Your task to perform on an android device: Add "usb-a" to the cart on target Image 0: 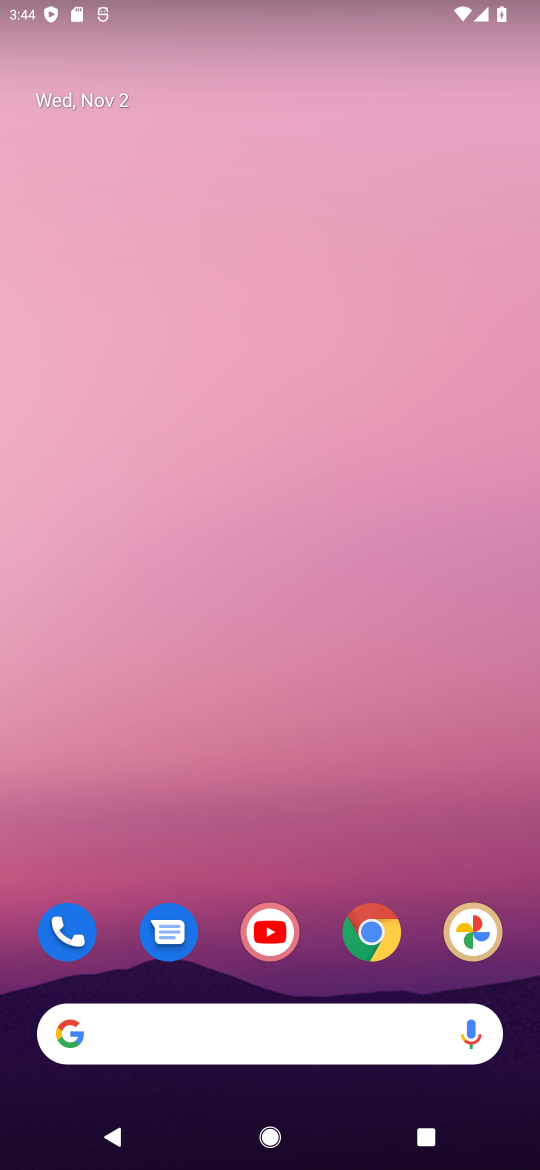
Step 0: click (392, 933)
Your task to perform on an android device: Add "usb-a" to the cart on target Image 1: 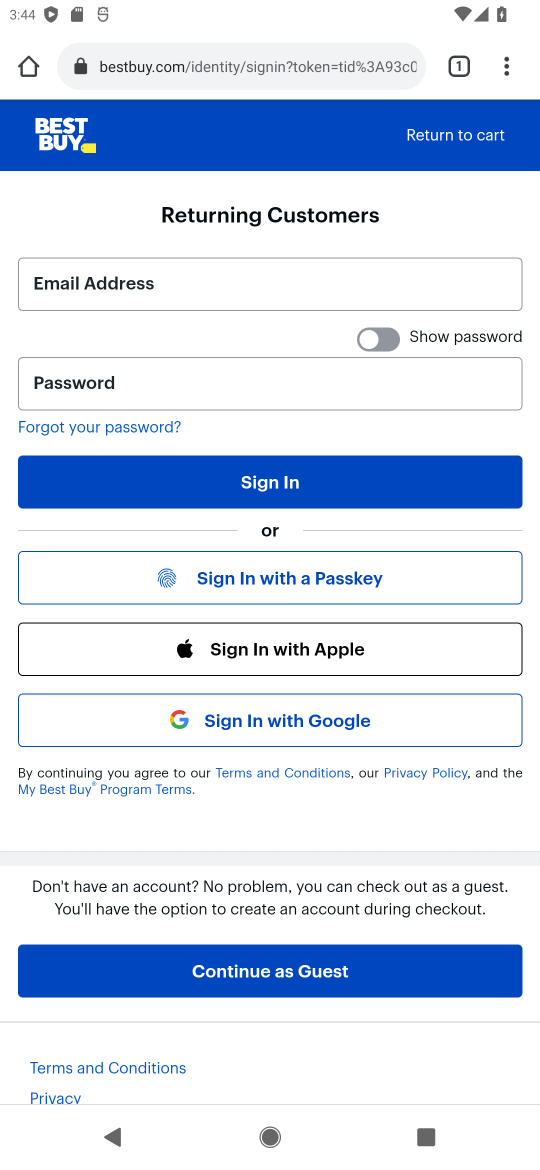
Step 1: click (287, 60)
Your task to perform on an android device: Add "usb-a" to the cart on target Image 2: 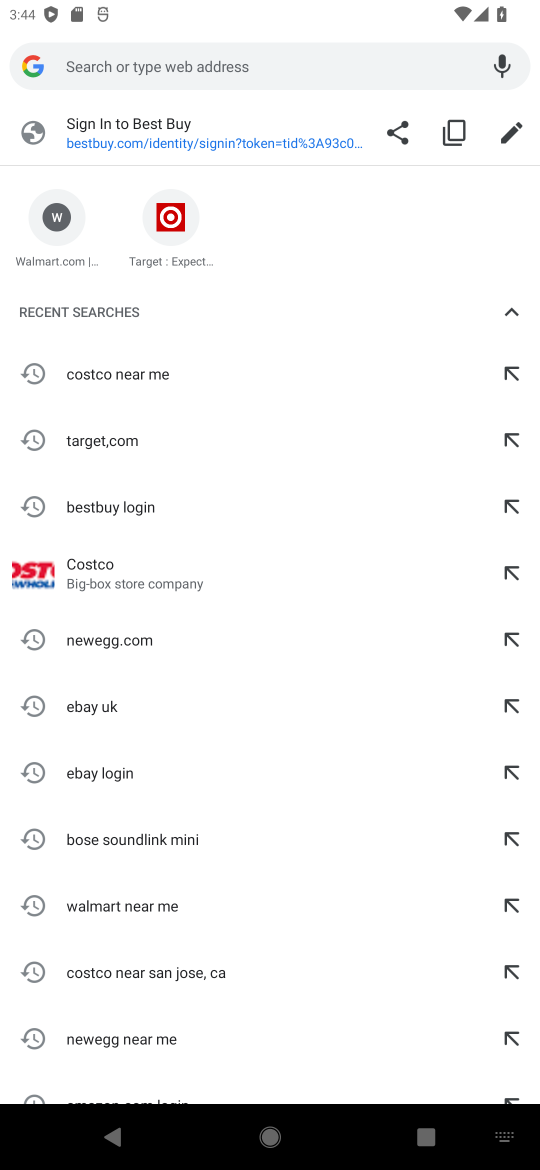
Step 2: click (180, 219)
Your task to perform on an android device: Add "usb-a" to the cart on target Image 3: 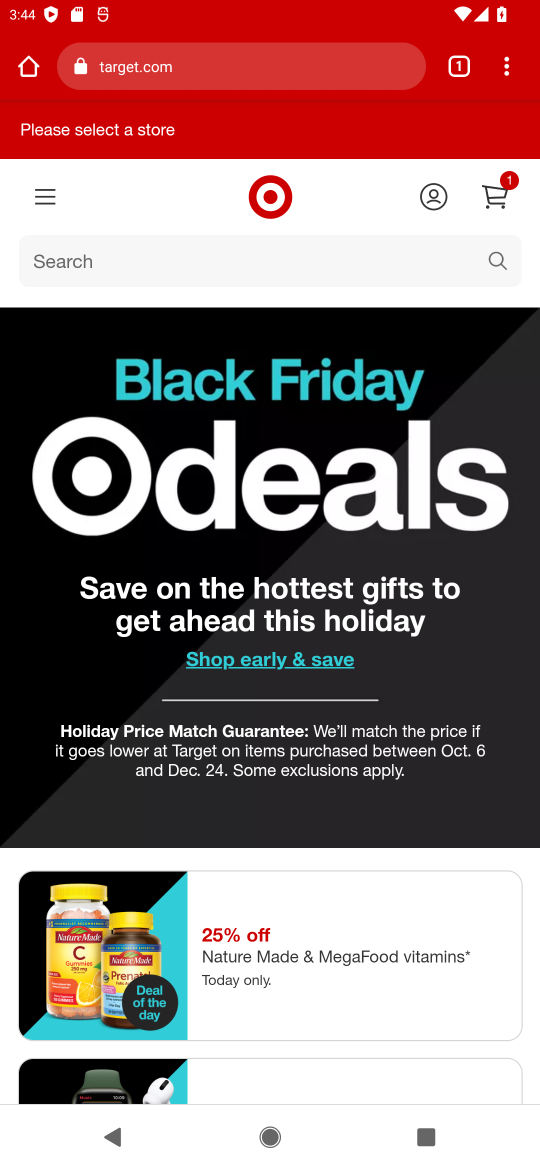
Step 3: click (251, 260)
Your task to perform on an android device: Add "usb-a" to the cart on target Image 4: 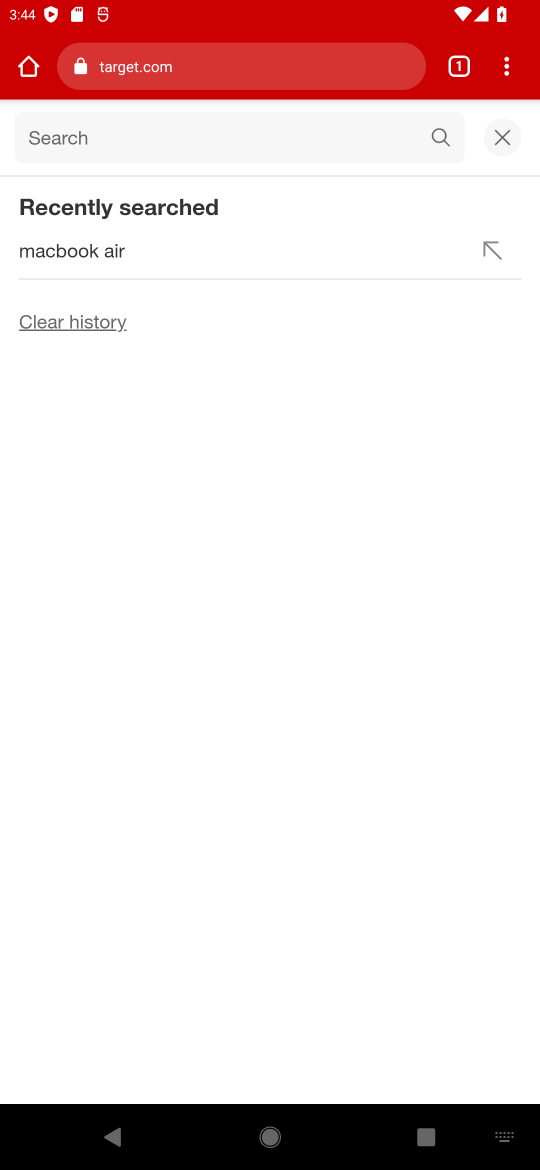
Step 4: type "usb a"
Your task to perform on an android device: Add "usb-a" to the cart on target Image 5: 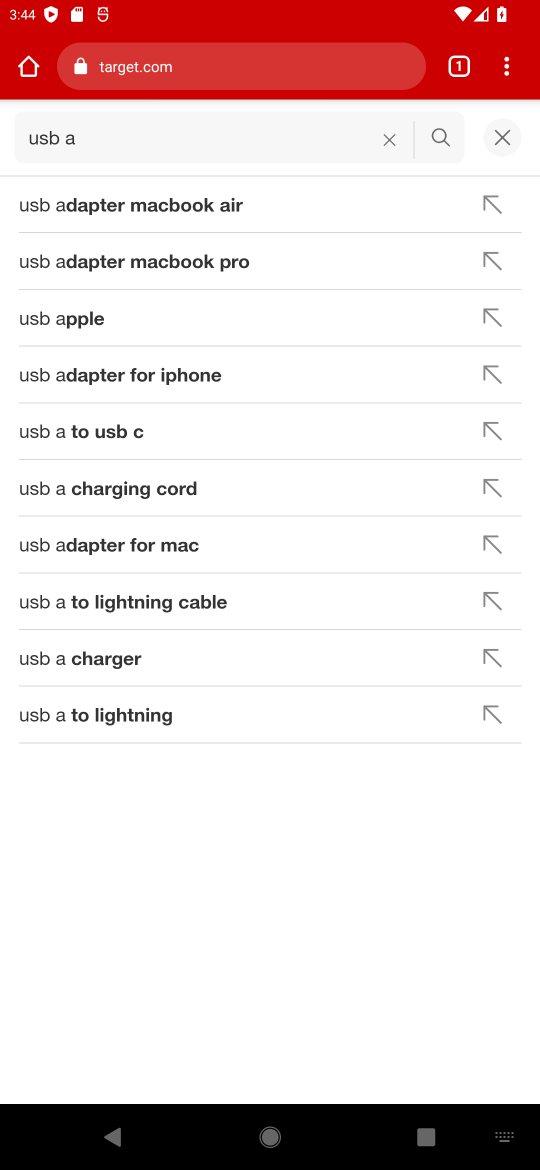
Step 5: click (61, 656)
Your task to perform on an android device: Add "usb-a" to the cart on target Image 6: 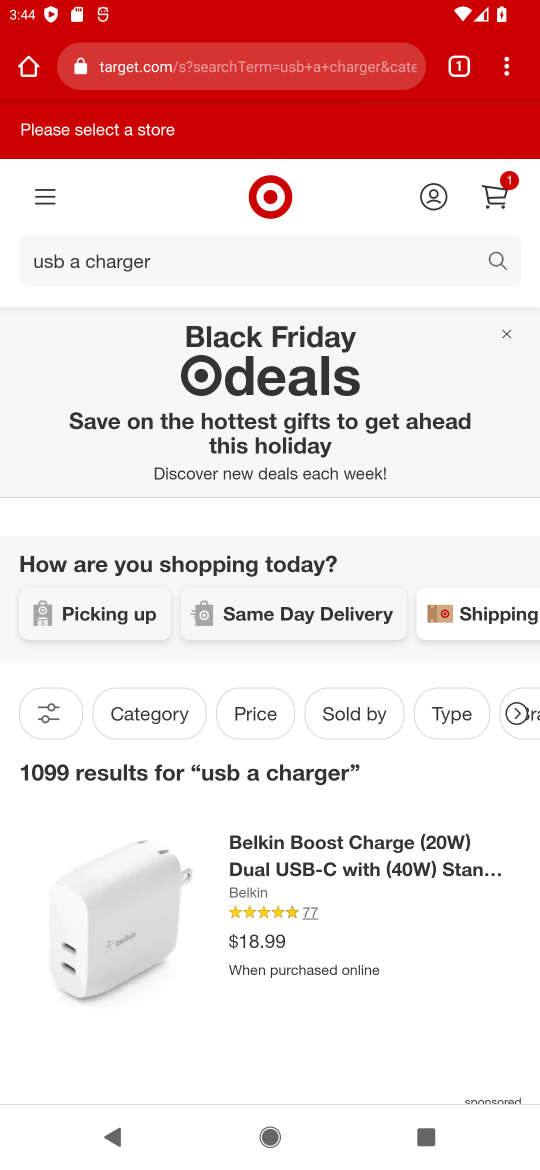
Step 6: drag from (393, 915) to (334, 486)
Your task to perform on an android device: Add "usb-a" to the cart on target Image 7: 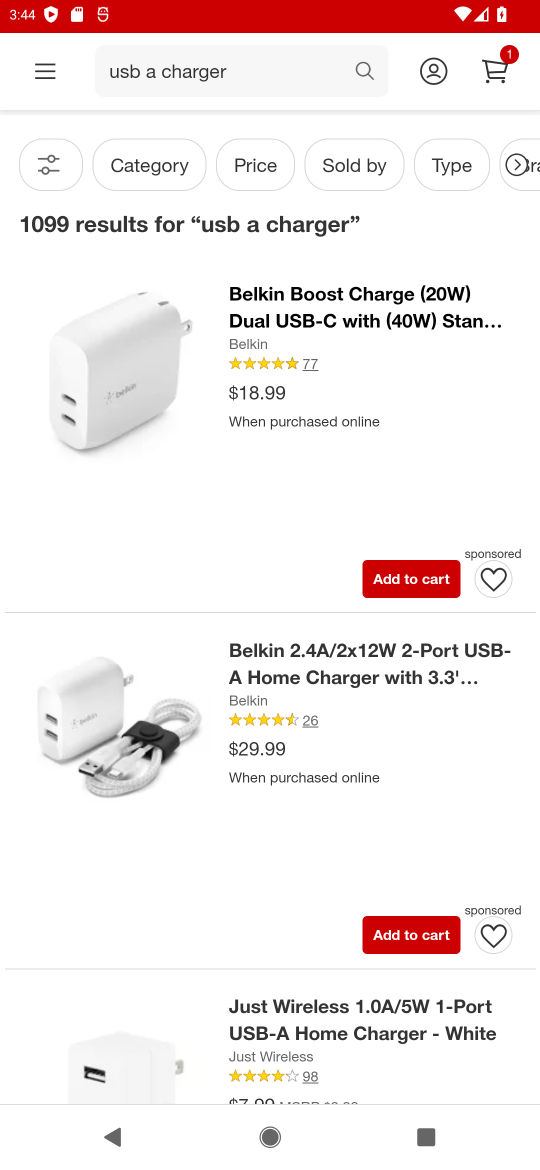
Step 7: click (95, 716)
Your task to perform on an android device: Add "usb-a" to the cart on target Image 8: 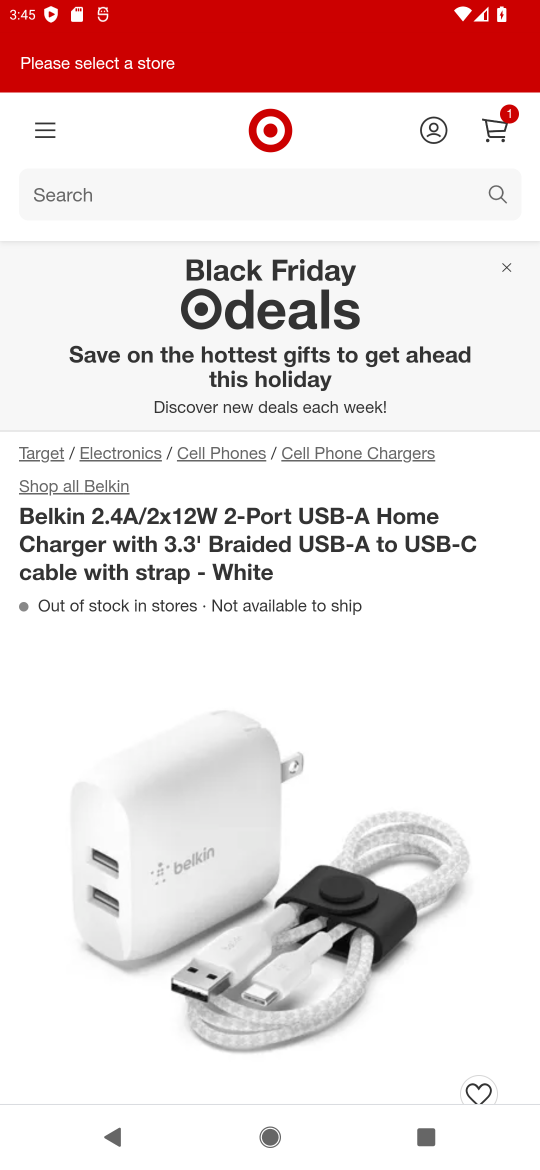
Step 8: drag from (206, 789) to (231, 188)
Your task to perform on an android device: Add "usb-a" to the cart on target Image 9: 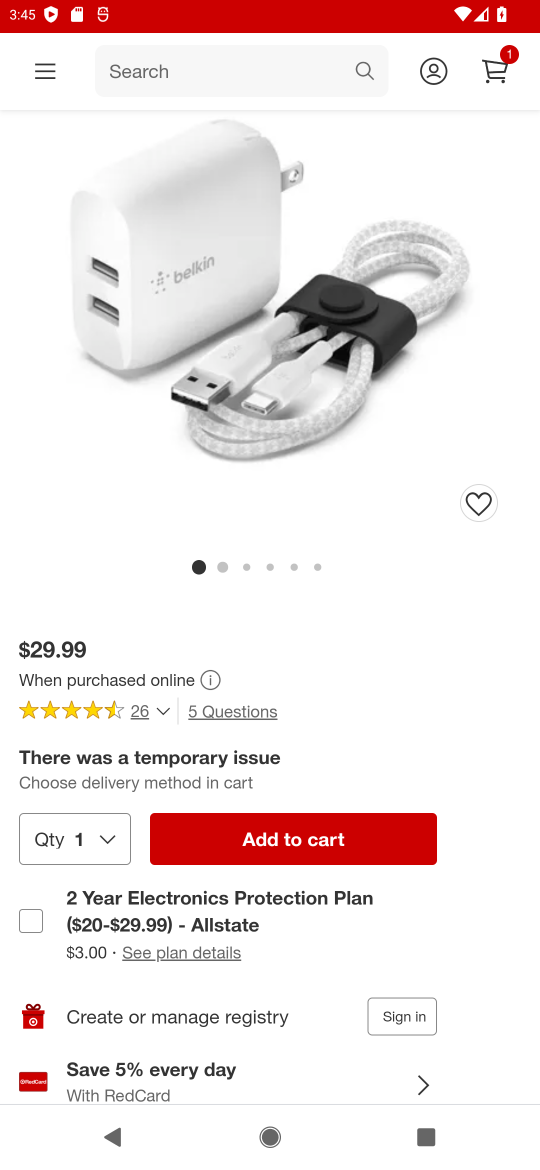
Step 9: click (351, 827)
Your task to perform on an android device: Add "usb-a" to the cart on target Image 10: 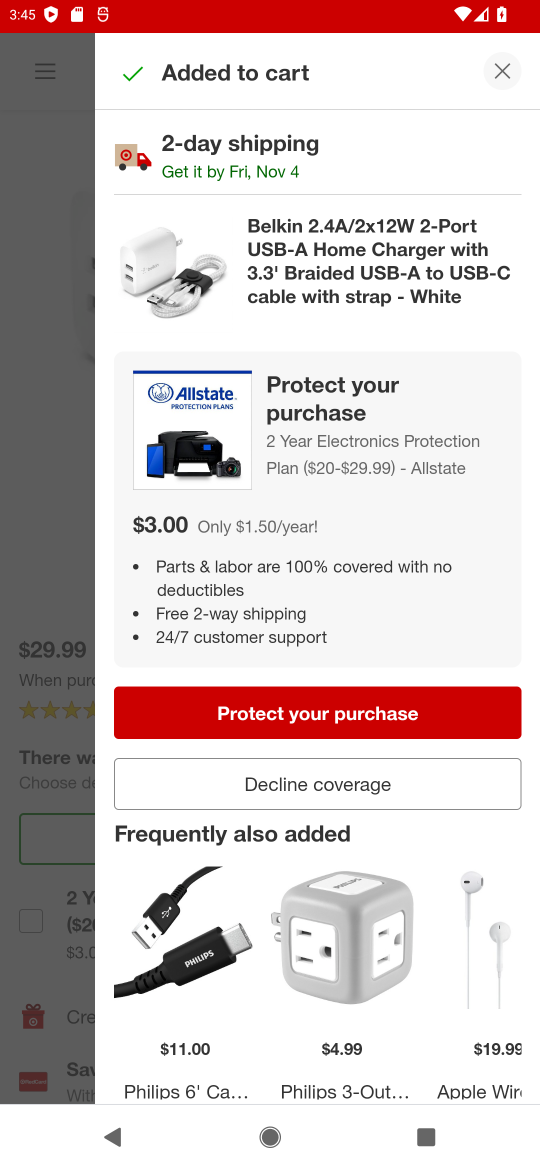
Step 10: task complete